Your task to perform on an android device: turn on improve location accuracy Image 0: 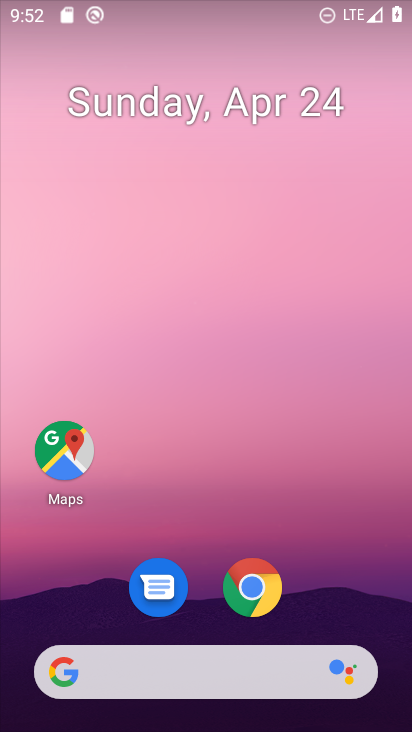
Step 0: drag from (385, 539) to (329, 67)
Your task to perform on an android device: turn on improve location accuracy Image 1: 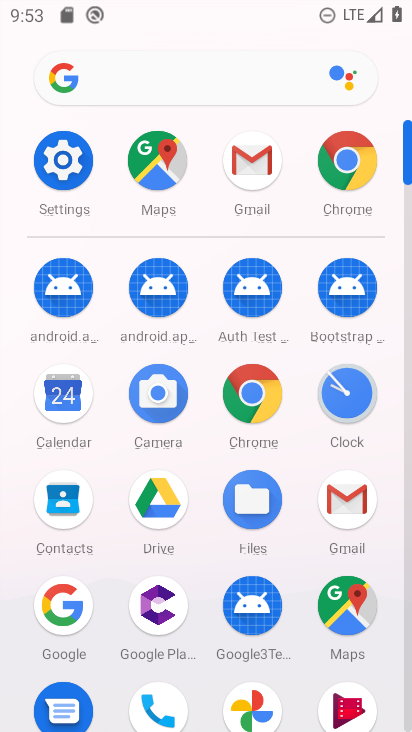
Step 1: click (73, 171)
Your task to perform on an android device: turn on improve location accuracy Image 2: 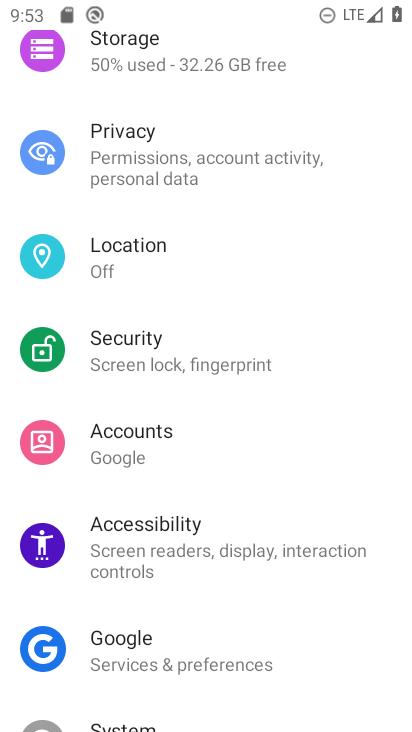
Step 2: click (139, 248)
Your task to perform on an android device: turn on improve location accuracy Image 3: 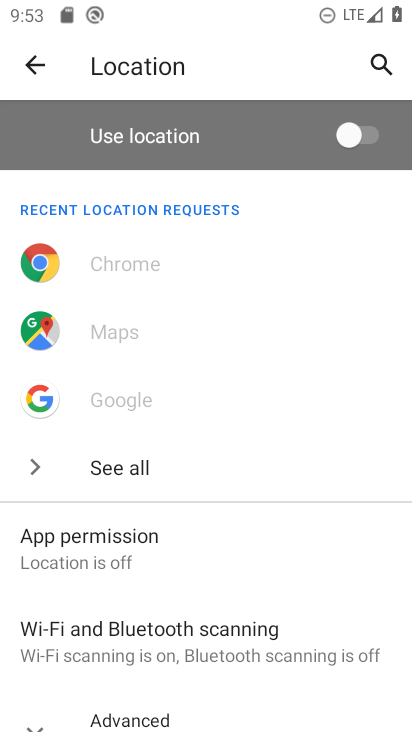
Step 3: drag from (246, 549) to (239, 275)
Your task to perform on an android device: turn on improve location accuracy Image 4: 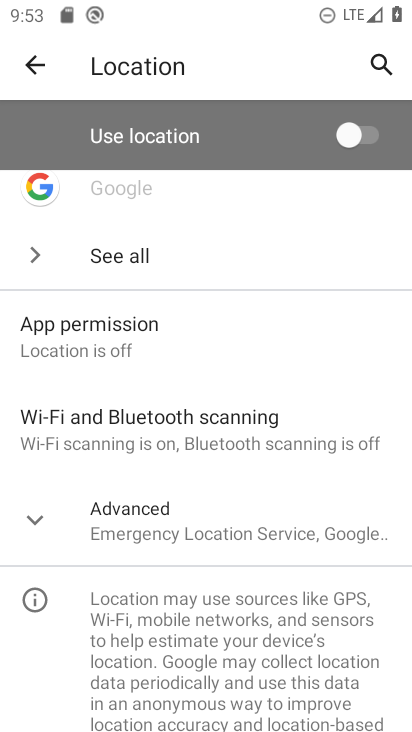
Step 4: click (267, 526)
Your task to perform on an android device: turn on improve location accuracy Image 5: 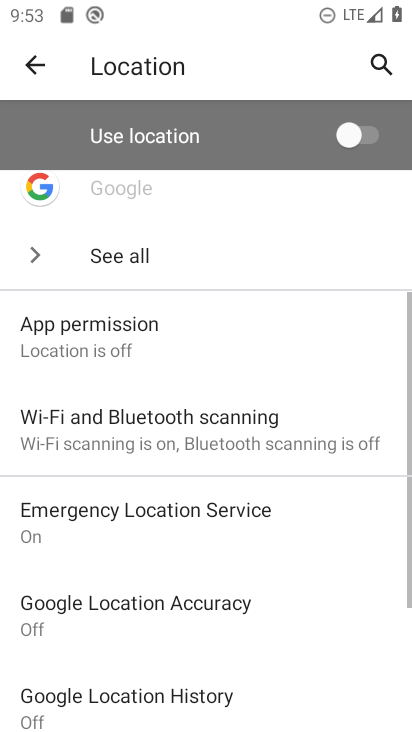
Step 5: drag from (298, 647) to (307, 357)
Your task to perform on an android device: turn on improve location accuracy Image 6: 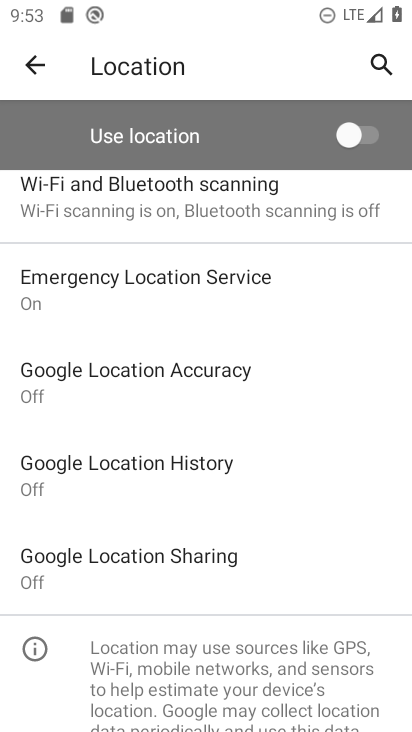
Step 6: click (244, 364)
Your task to perform on an android device: turn on improve location accuracy Image 7: 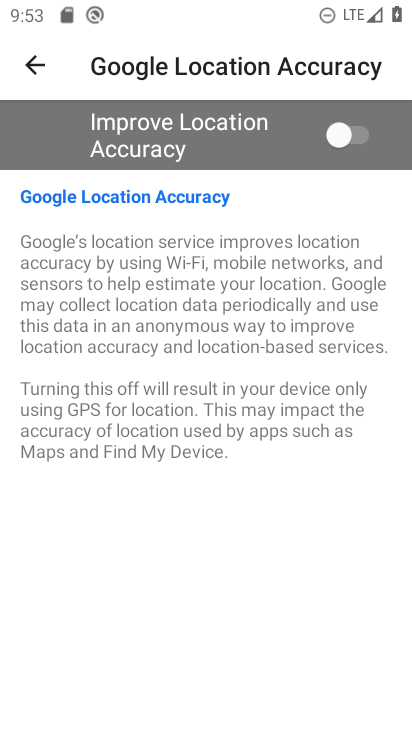
Step 7: click (360, 137)
Your task to perform on an android device: turn on improve location accuracy Image 8: 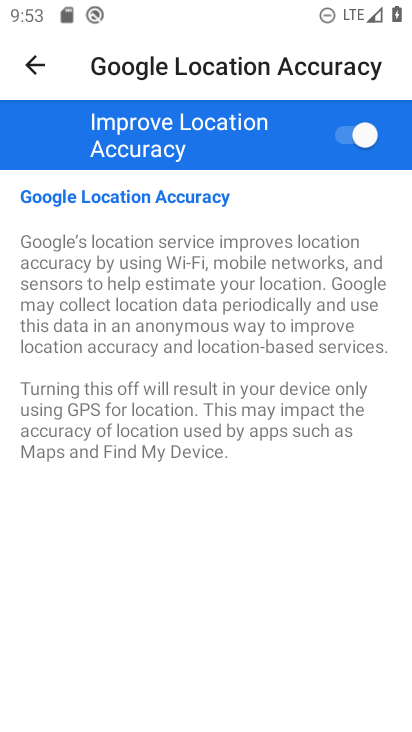
Step 8: task complete